Your task to perform on an android device: change the clock display to digital Image 0: 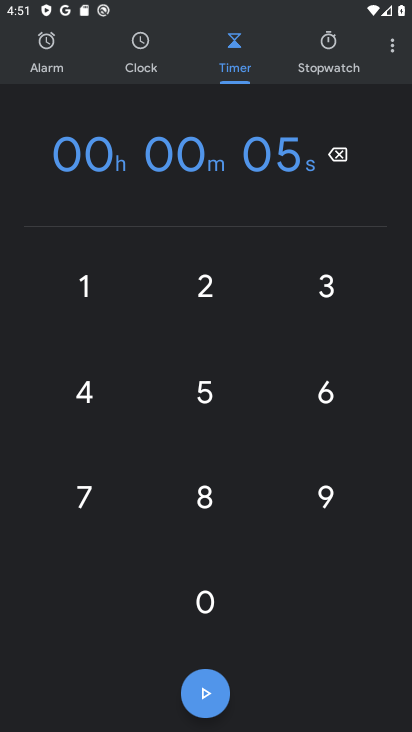
Step 0: click (392, 46)
Your task to perform on an android device: change the clock display to digital Image 1: 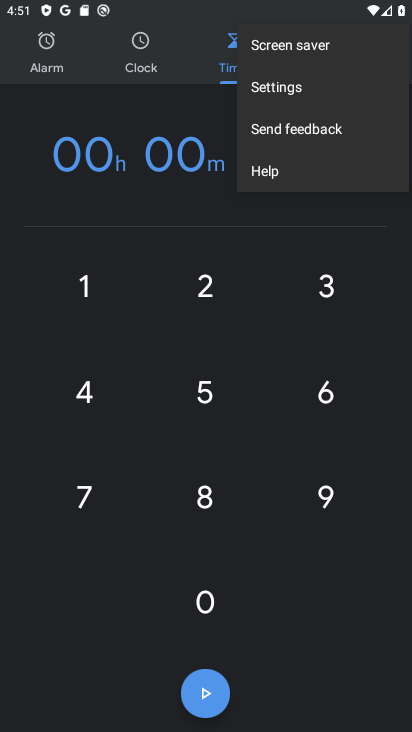
Step 1: click (298, 83)
Your task to perform on an android device: change the clock display to digital Image 2: 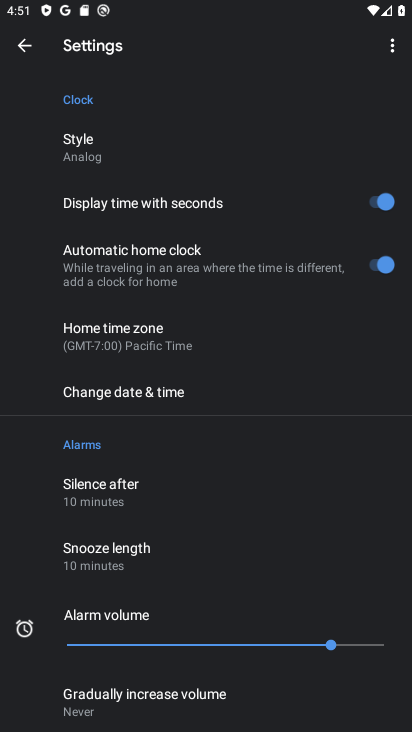
Step 2: click (68, 136)
Your task to perform on an android device: change the clock display to digital Image 3: 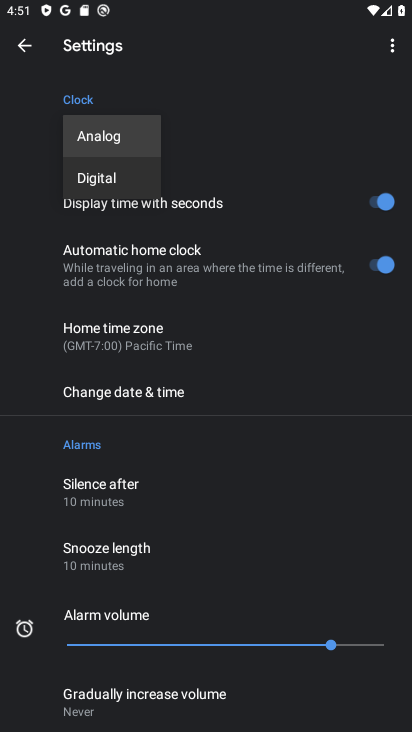
Step 3: click (120, 183)
Your task to perform on an android device: change the clock display to digital Image 4: 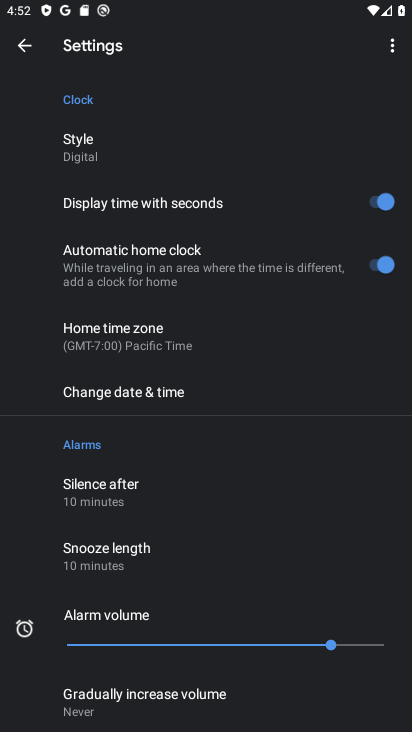
Step 4: task complete